Your task to perform on an android device: delete location history Image 0: 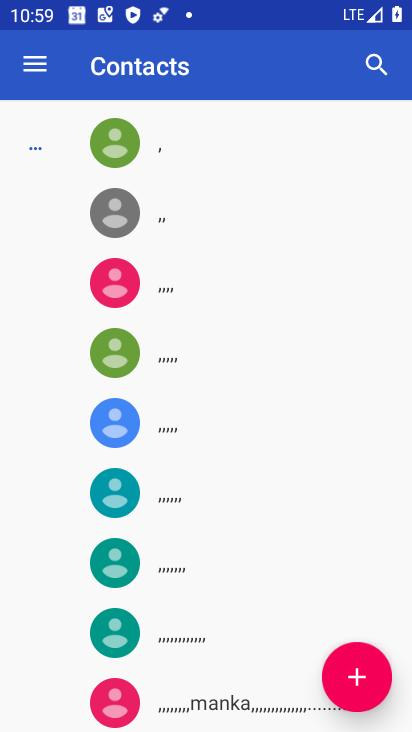
Step 0: press home button
Your task to perform on an android device: delete location history Image 1: 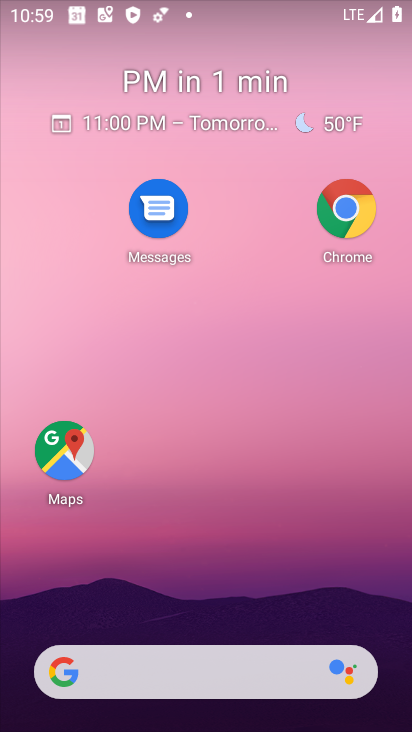
Step 1: drag from (218, 639) to (5, 259)
Your task to perform on an android device: delete location history Image 2: 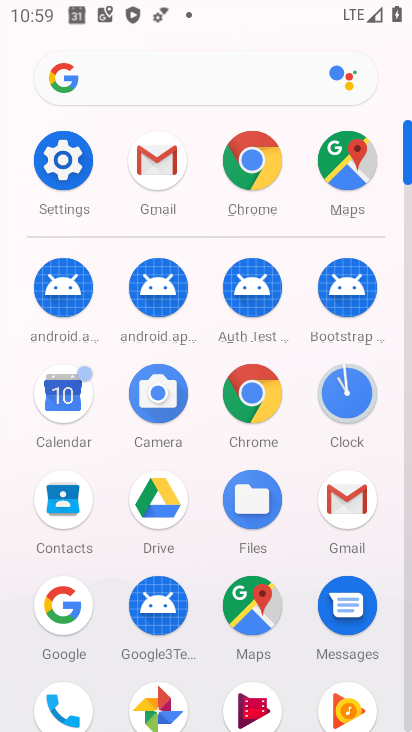
Step 2: click (333, 166)
Your task to perform on an android device: delete location history Image 3: 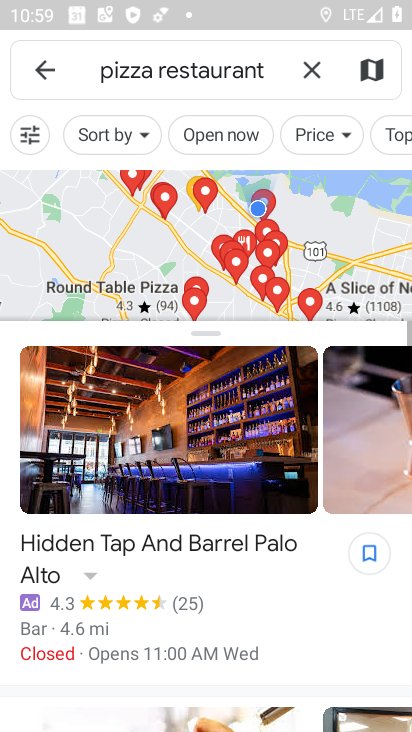
Step 3: click (51, 70)
Your task to perform on an android device: delete location history Image 4: 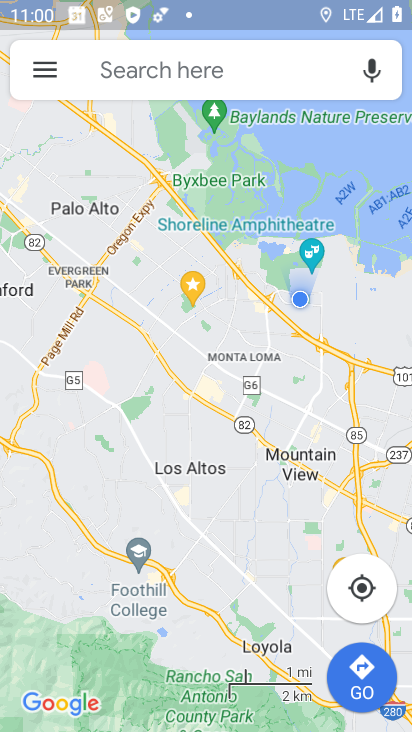
Step 4: click (50, 69)
Your task to perform on an android device: delete location history Image 5: 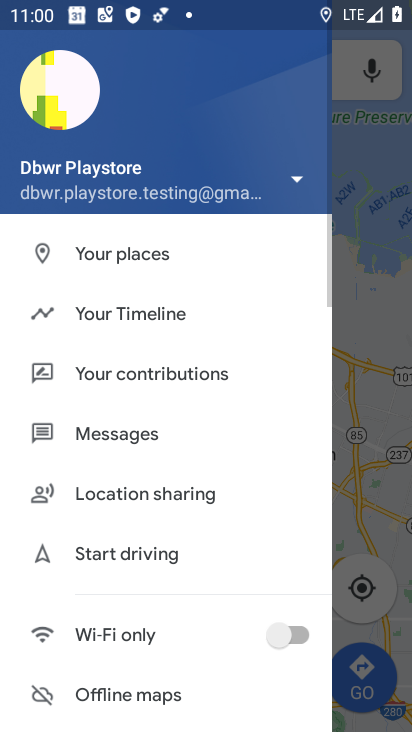
Step 5: drag from (165, 563) to (118, 35)
Your task to perform on an android device: delete location history Image 6: 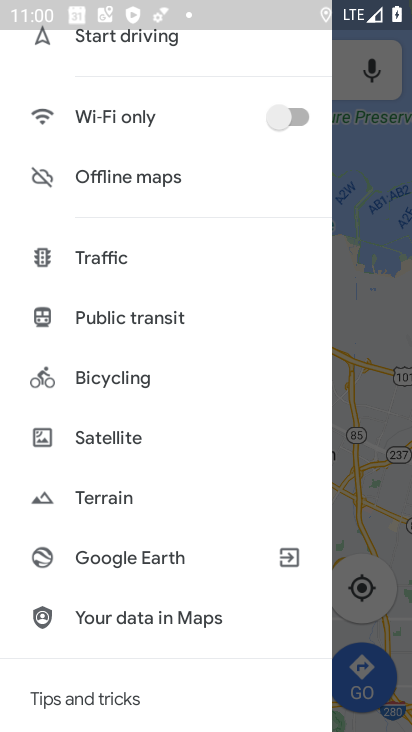
Step 6: drag from (167, 483) to (124, 71)
Your task to perform on an android device: delete location history Image 7: 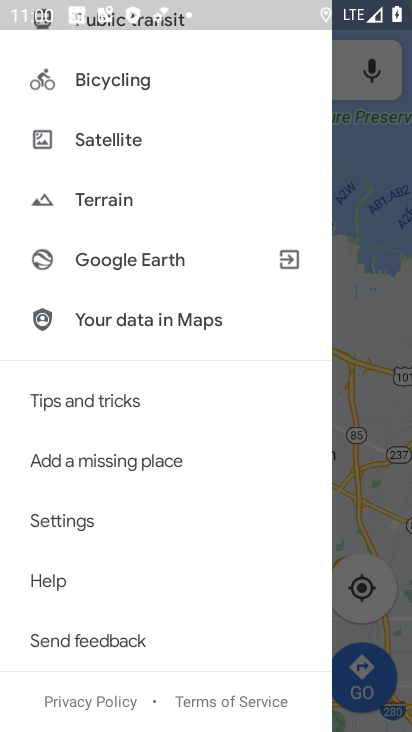
Step 7: click (66, 525)
Your task to perform on an android device: delete location history Image 8: 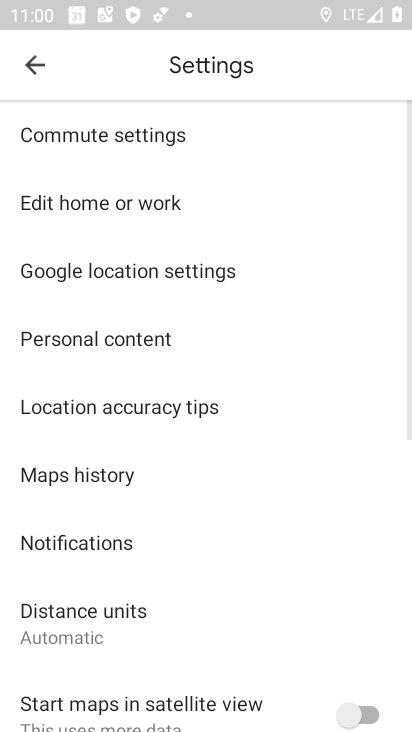
Step 8: click (21, 83)
Your task to perform on an android device: delete location history Image 9: 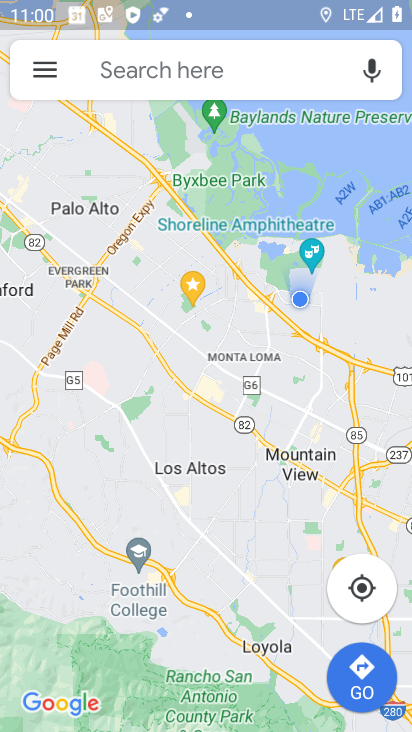
Step 9: click (32, 72)
Your task to perform on an android device: delete location history Image 10: 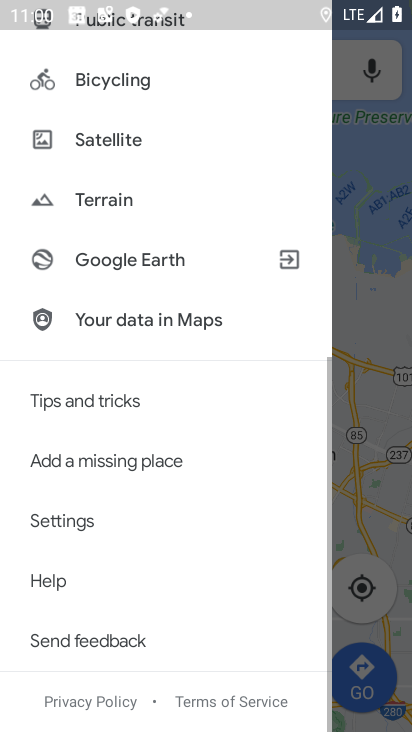
Step 10: drag from (79, 116) to (85, 493)
Your task to perform on an android device: delete location history Image 11: 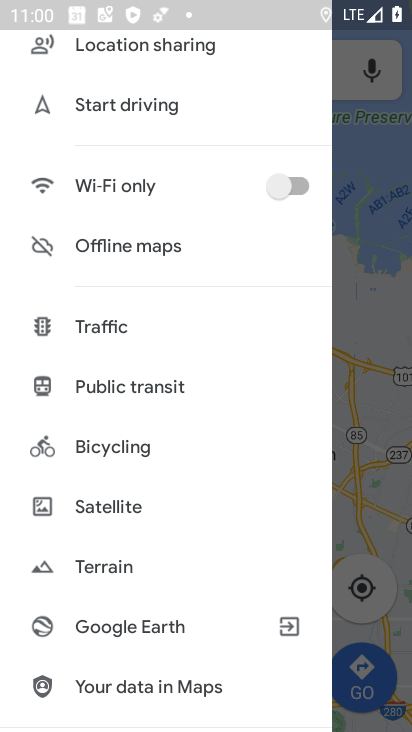
Step 11: drag from (136, 237) to (140, 393)
Your task to perform on an android device: delete location history Image 12: 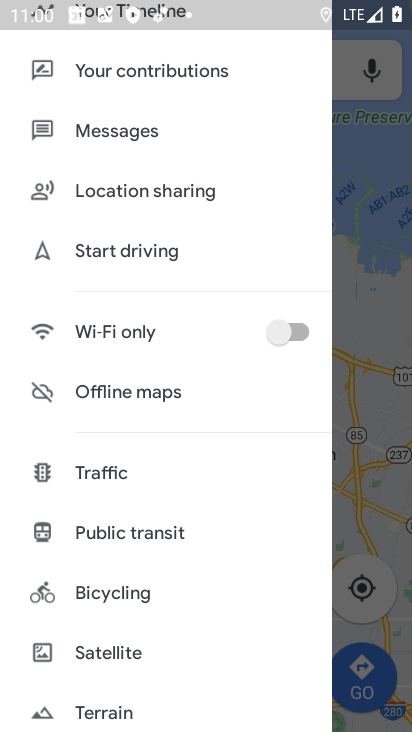
Step 12: drag from (179, 181) to (149, 649)
Your task to perform on an android device: delete location history Image 13: 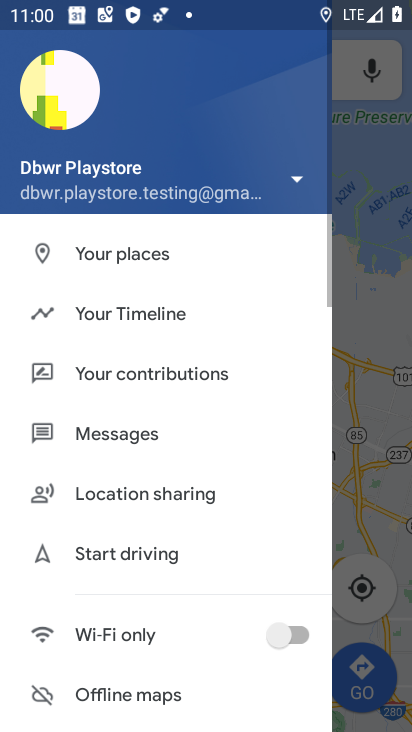
Step 13: click (102, 331)
Your task to perform on an android device: delete location history Image 14: 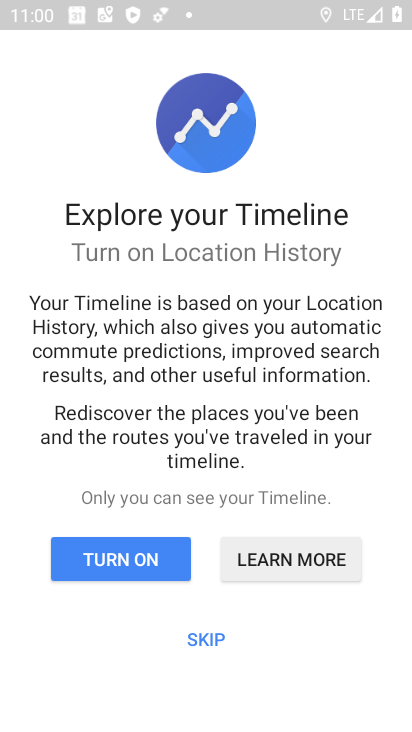
Step 14: click (203, 642)
Your task to perform on an android device: delete location history Image 15: 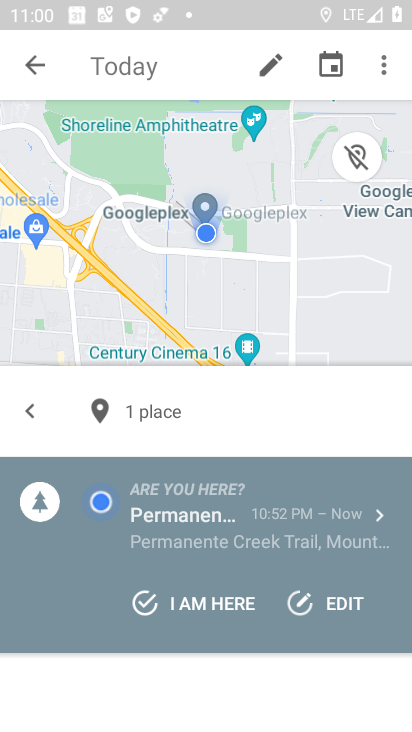
Step 15: click (391, 70)
Your task to perform on an android device: delete location history Image 16: 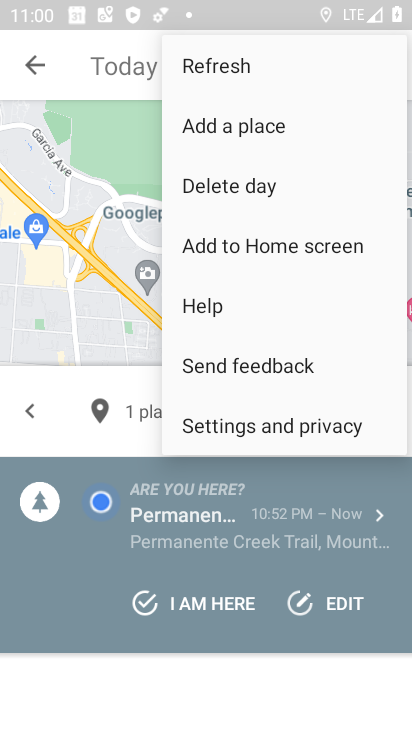
Step 16: click (289, 433)
Your task to perform on an android device: delete location history Image 17: 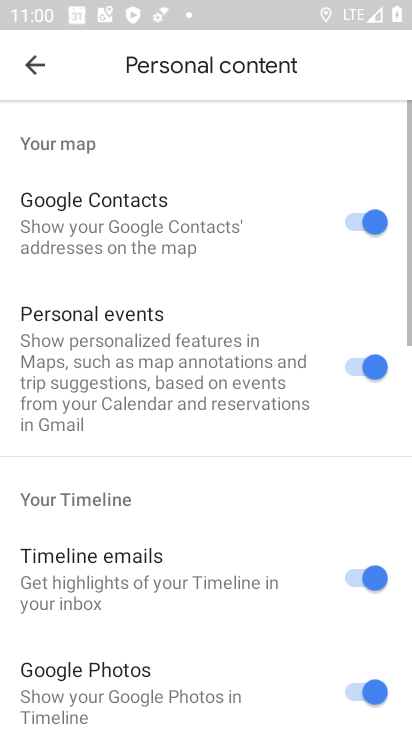
Step 17: drag from (229, 498) to (227, 151)
Your task to perform on an android device: delete location history Image 18: 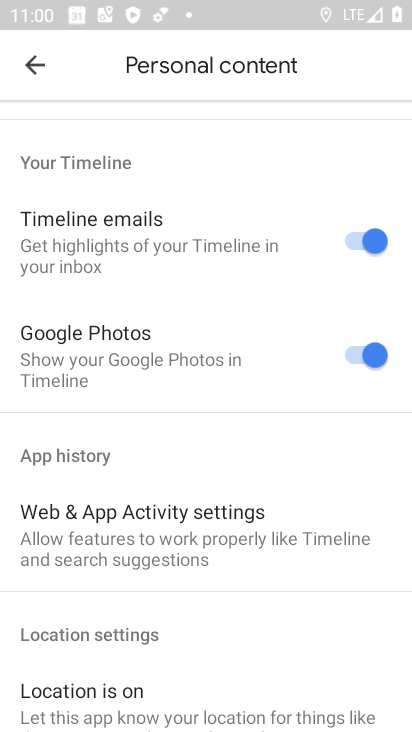
Step 18: drag from (253, 605) to (247, 318)
Your task to perform on an android device: delete location history Image 19: 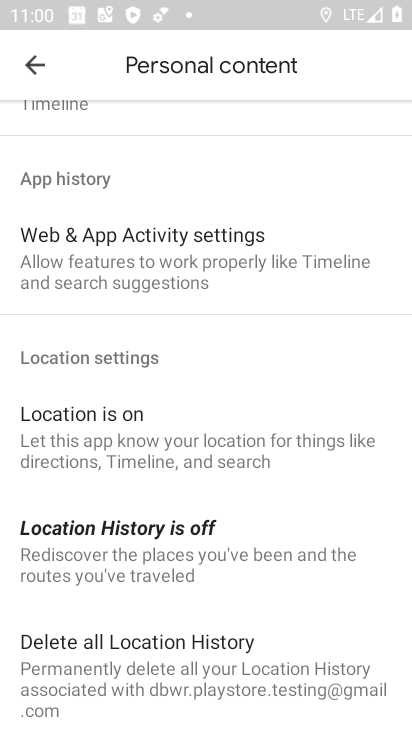
Step 19: click (198, 655)
Your task to perform on an android device: delete location history Image 20: 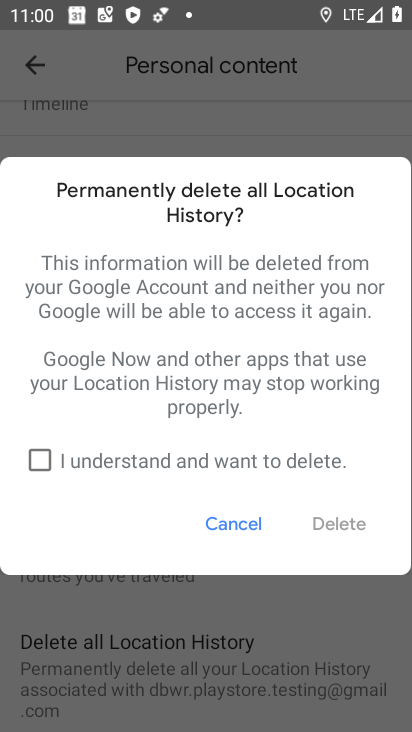
Step 20: click (51, 463)
Your task to perform on an android device: delete location history Image 21: 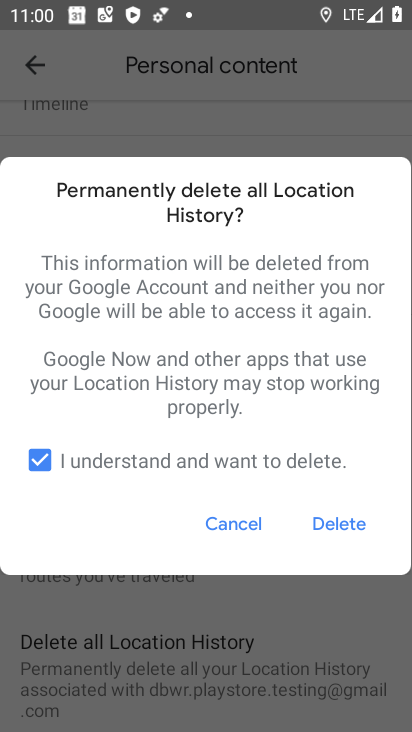
Step 21: click (352, 531)
Your task to perform on an android device: delete location history Image 22: 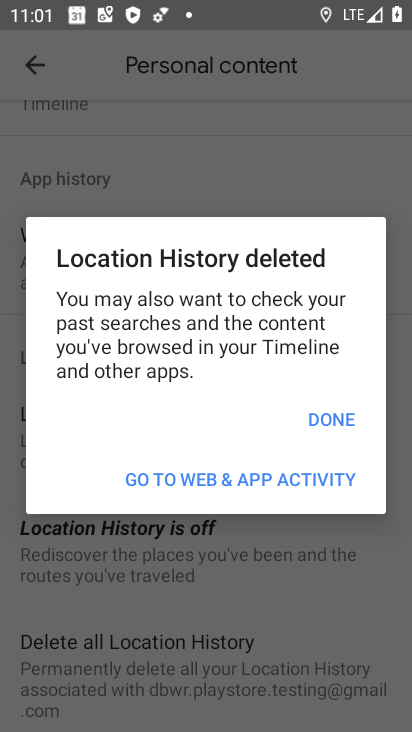
Step 22: click (319, 421)
Your task to perform on an android device: delete location history Image 23: 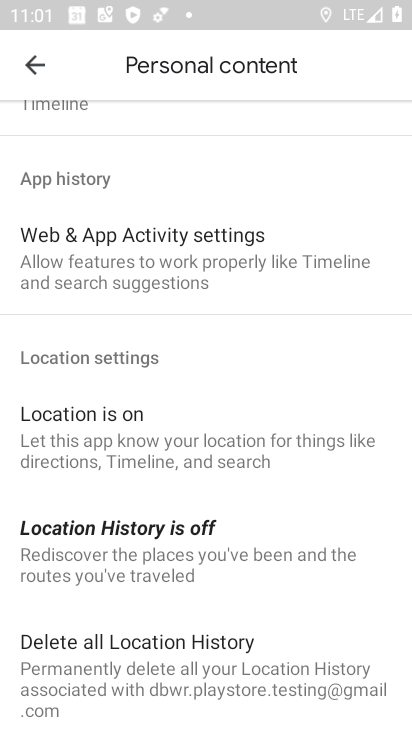
Step 23: task complete